Your task to perform on an android device: Open maps Image 0: 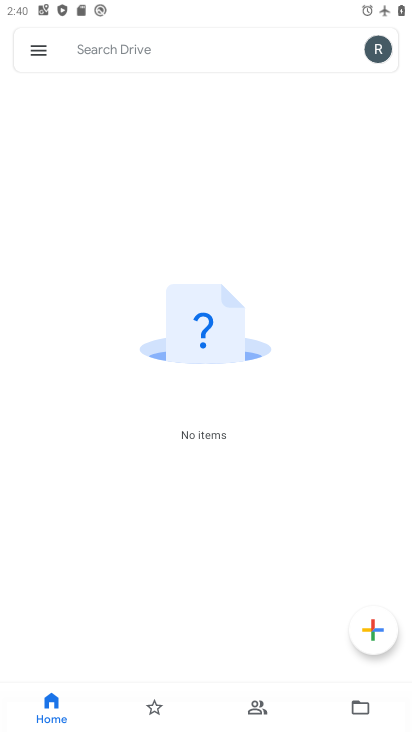
Step 0: press home button
Your task to perform on an android device: Open maps Image 1: 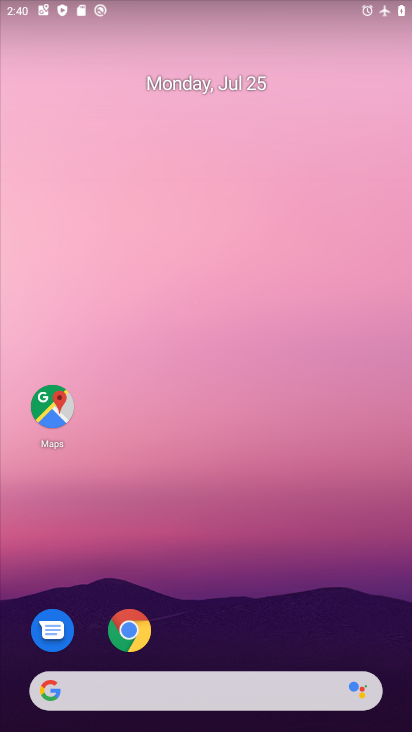
Step 1: click (58, 430)
Your task to perform on an android device: Open maps Image 2: 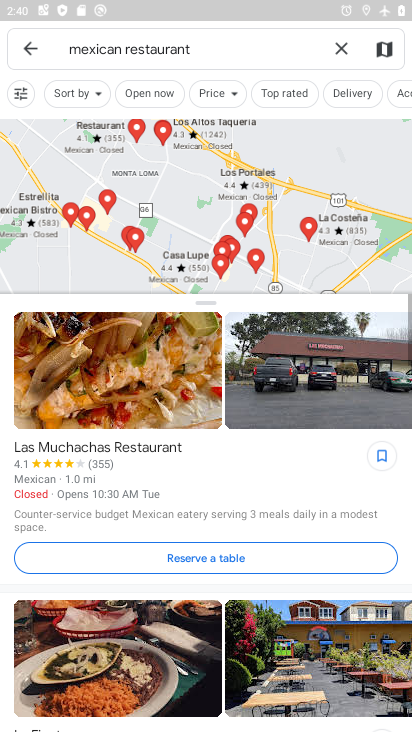
Step 2: task complete